Your task to perform on an android device: check the backup settings in the google photos Image 0: 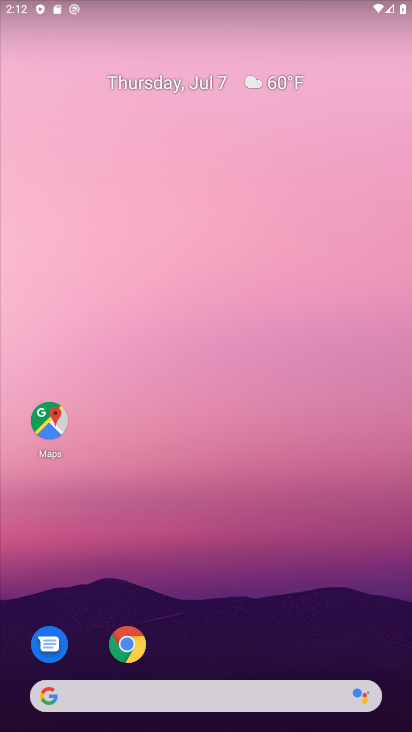
Step 0: drag from (215, 679) to (207, 166)
Your task to perform on an android device: check the backup settings in the google photos Image 1: 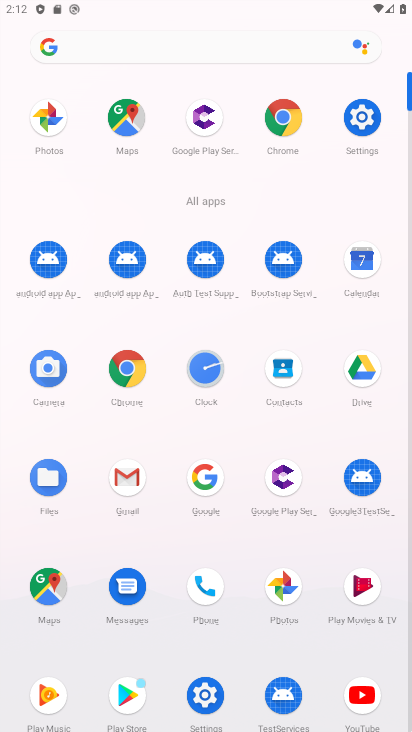
Step 1: click (286, 597)
Your task to perform on an android device: check the backup settings in the google photos Image 2: 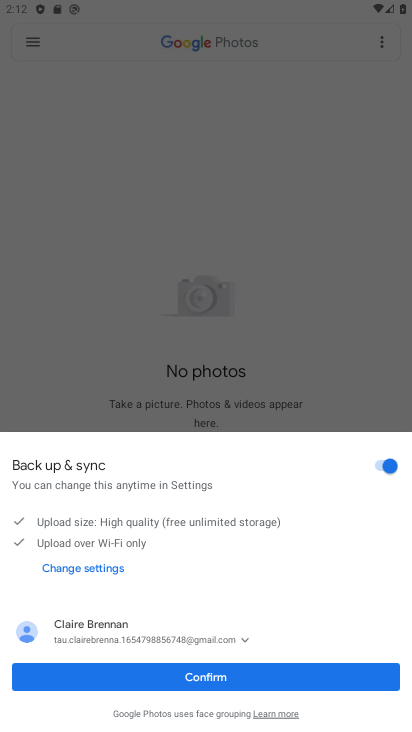
Step 2: click (210, 677)
Your task to perform on an android device: check the backup settings in the google photos Image 3: 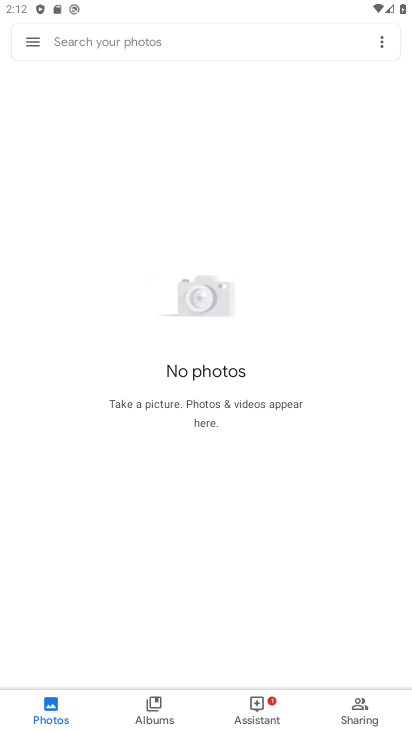
Step 3: click (34, 48)
Your task to perform on an android device: check the backup settings in the google photos Image 4: 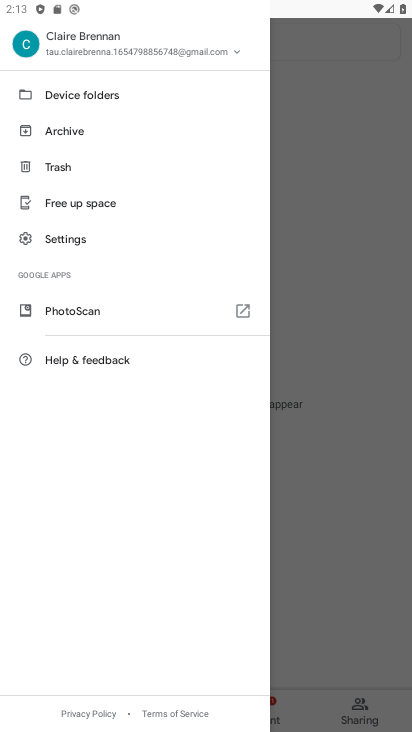
Step 4: click (73, 240)
Your task to perform on an android device: check the backup settings in the google photos Image 5: 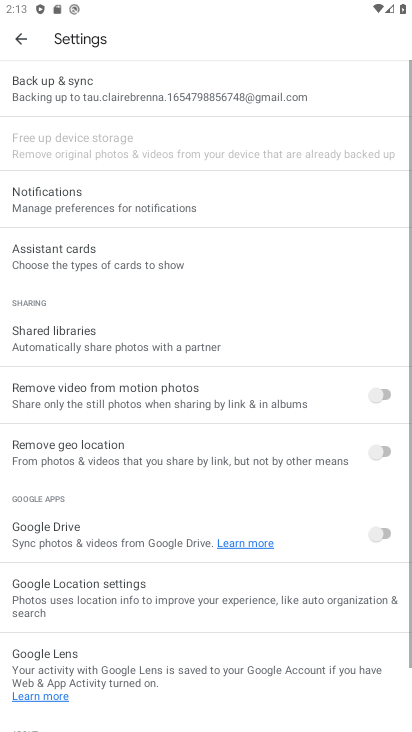
Step 5: click (118, 76)
Your task to perform on an android device: check the backup settings in the google photos Image 6: 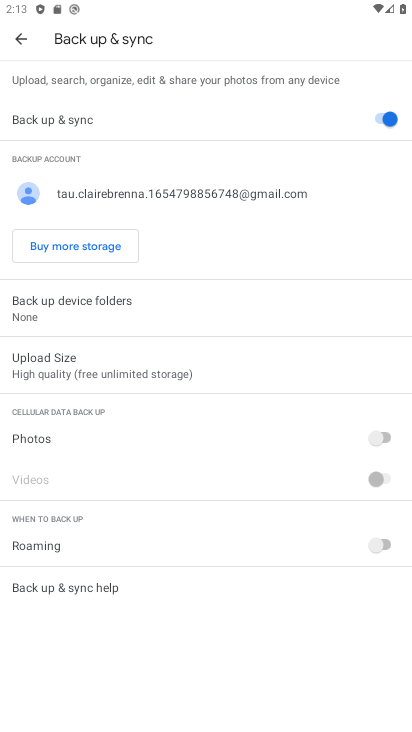
Step 6: task complete